Your task to perform on an android device: check google app version Image 0: 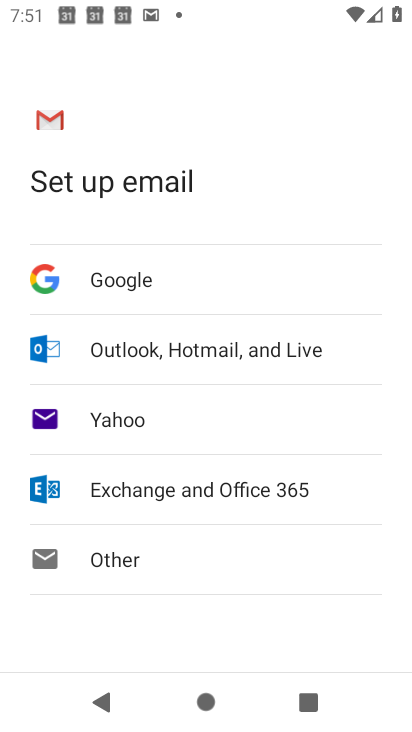
Step 0: press home button
Your task to perform on an android device: check google app version Image 1: 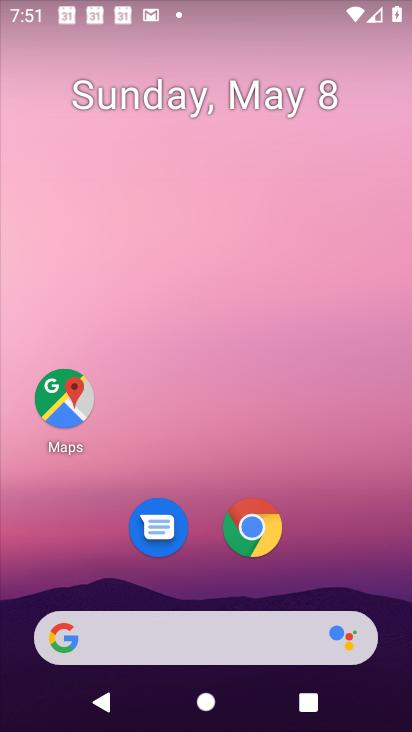
Step 1: drag from (287, 575) to (285, 34)
Your task to perform on an android device: check google app version Image 2: 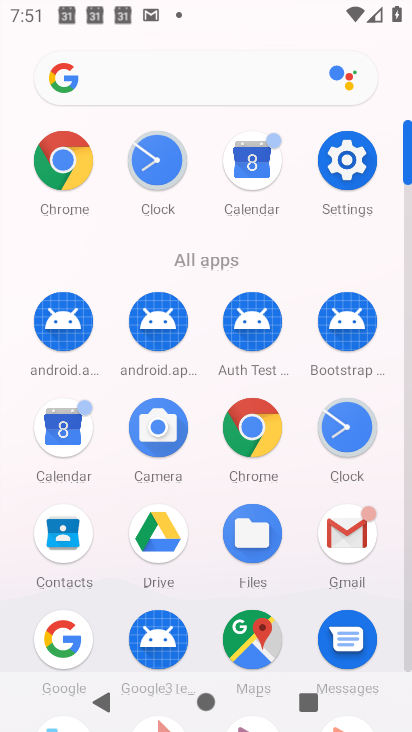
Step 2: click (61, 635)
Your task to perform on an android device: check google app version Image 3: 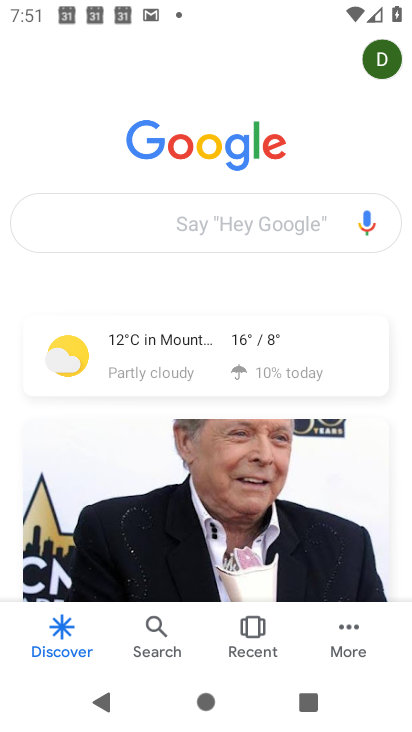
Step 3: click (348, 648)
Your task to perform on an android device: check google app version Image 4: 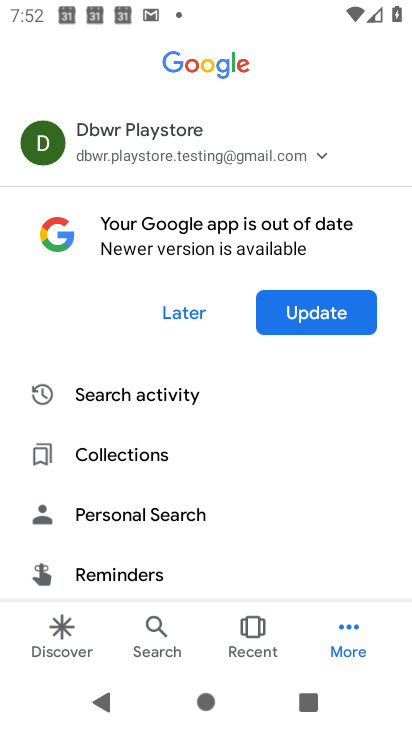
Step 4: drag from (196, 583) to (217, 184)
Your task to perform on an android device: check google app version Image 5: 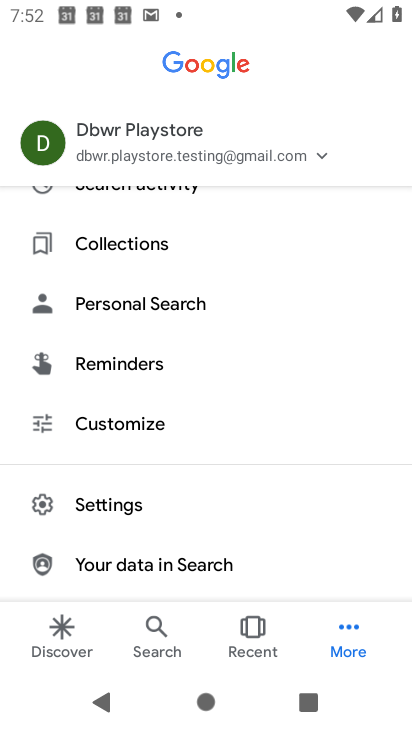
Step 5: click (180, 503)
Your task to perform on an android device: check google app version Image 6: 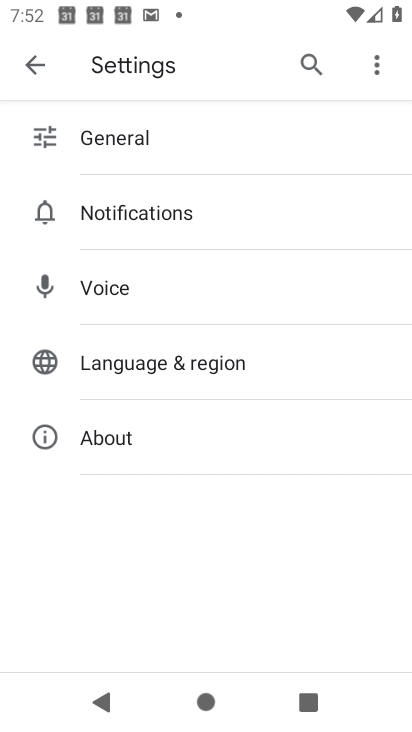
Step 6: click (154, 444)
Your task to perform on an android device: check google app version Image 7: 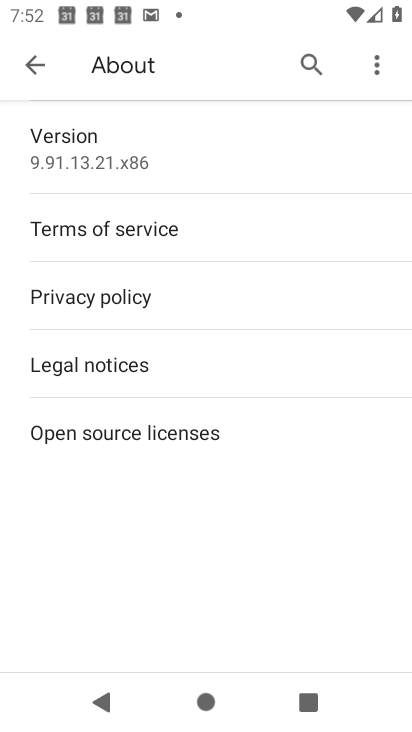
Step 7: click (291, 154)
Your task to perform on an android device: check google app version Image 8: 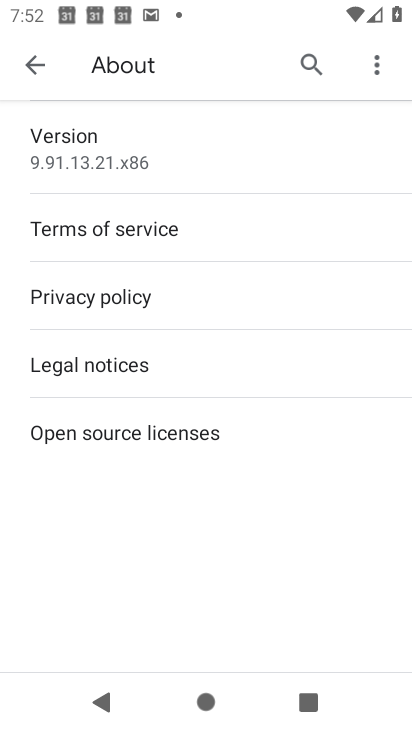
Step 8: task complete